Your task to perform on an android device: turn off translation in the chrome app Image 0: 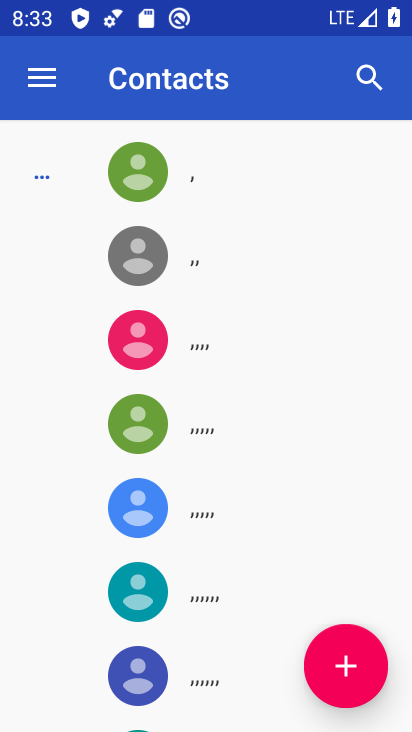
Step 0: press home button
Your task to perform on an android device: turn off translation in the chrome app Image 1: 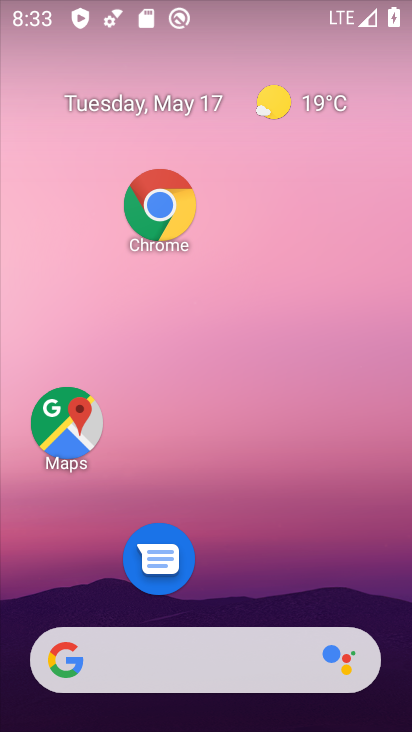
Step 1: drag from (207, 559) to (218, 212)
Your task to perform on an android device: turn off translation in the chrome app Image 2: 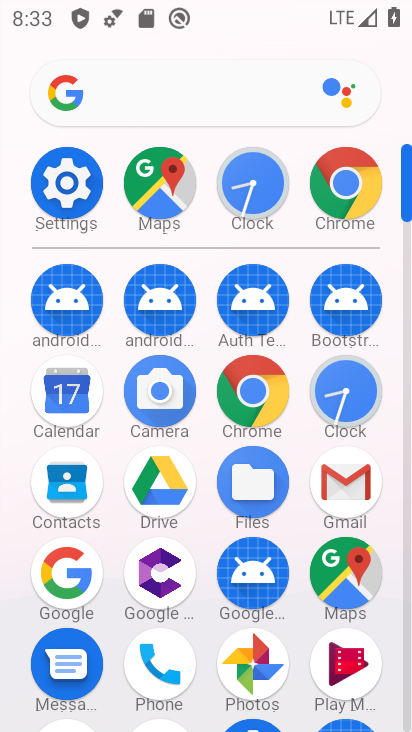
Step 2: click (331, 181)
Your task to perform on an android device: turn off translation in the chrome app Image 3: 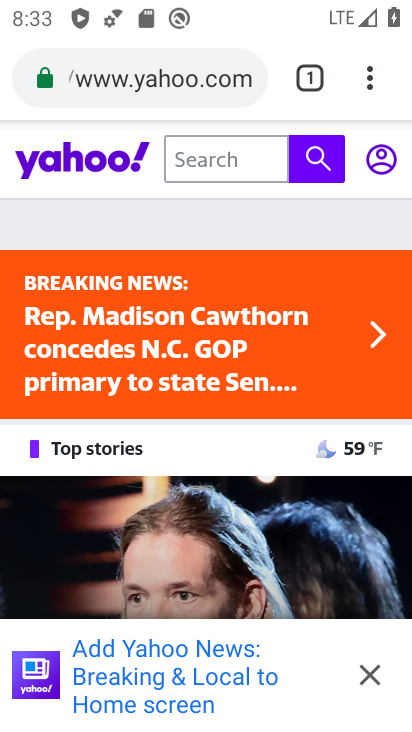
Step 3: click (372, 86)
Your task to perform on an android device: turn off translation in the chrome app Image 4: 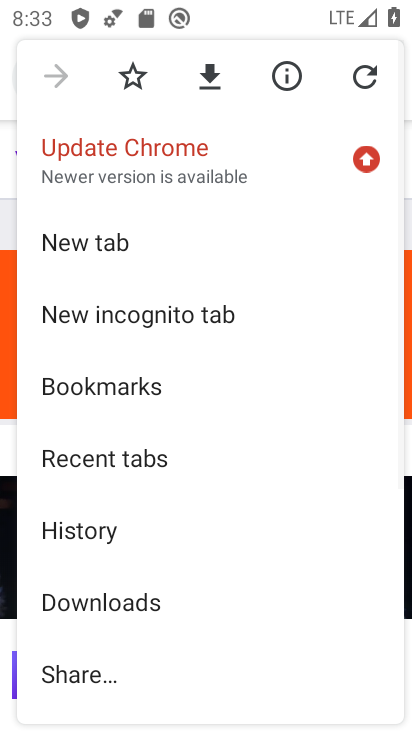
Step 4: drag from (158, 614) to (207, 156)
Your task to perform on an android device: turn off translation in the chrome app Image 5: 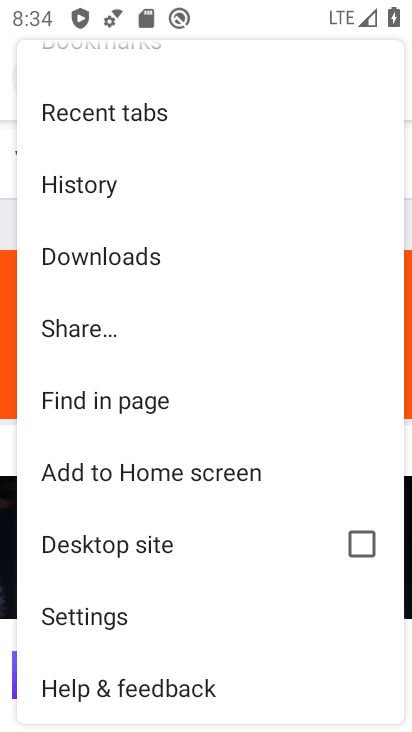
Step 5: click (115, 608)
Your task to perform on an android device: turn off translation in the chrome app Image 6: 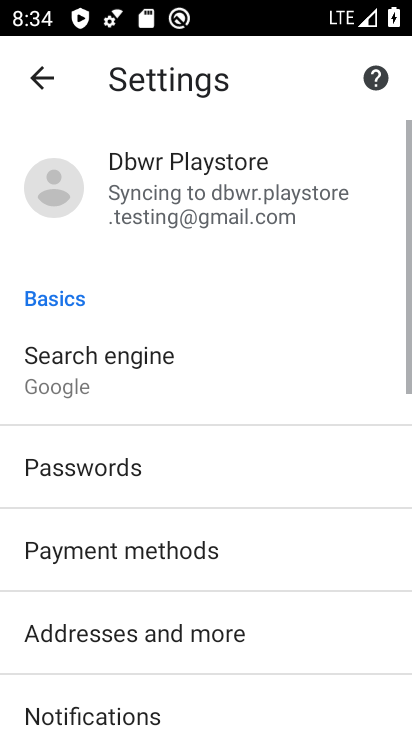
Step 6: drag from (166, 650) to (245, 133)
Your task to perform on an android device: turn off translation in the chrome app Image 7: 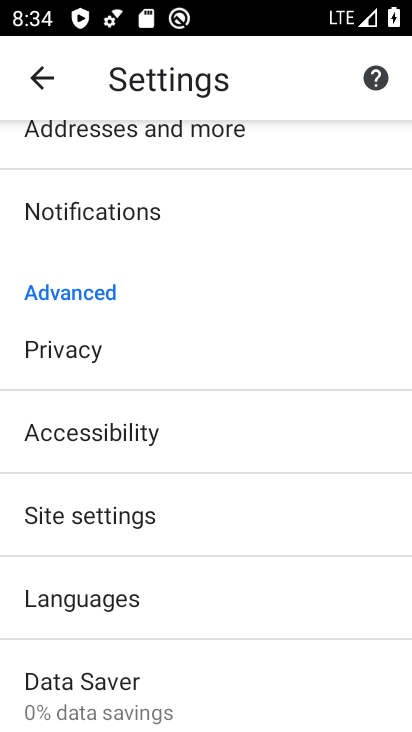
Step 7: drag from (180, 625) to (216, 301)
Your task to perform on an android device: turn off translation in the chrome app Image 8: 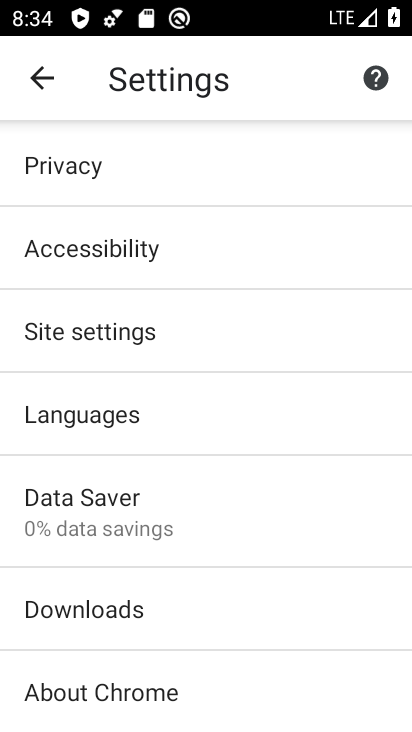
Step 8: drag from (180, 639) to (235, 270)
Your task to perform on an android device: turn off translation in the chrome app Image 9: 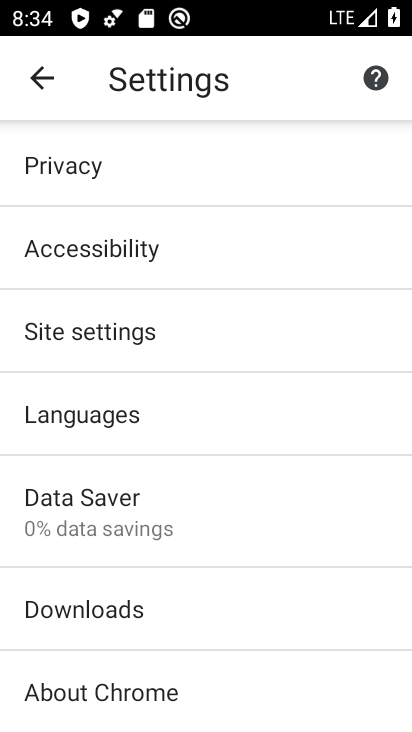
Step 9: drag from (160, 606) to (194, 299)
Your task to perform on an android device: turn off translation in the chrome app Image 10: 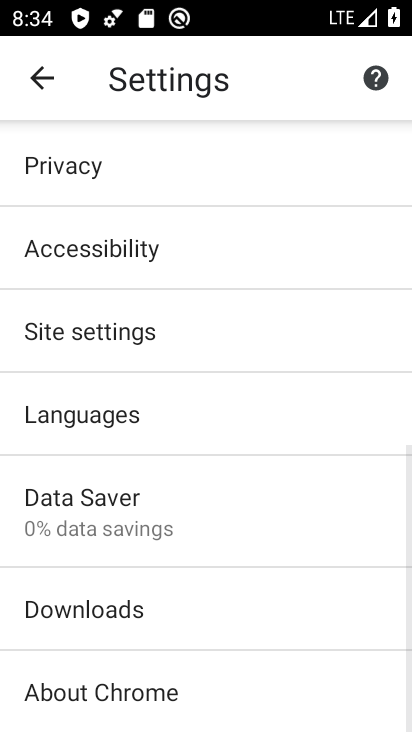
Step 10: drag from (253, 644) to (272, 299)
Your task to perform on an android device: turn off translation in the chrome app Image 11: 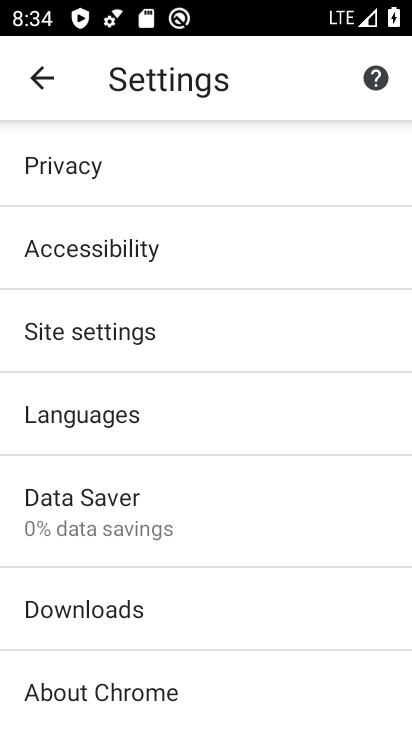
Step 11: click (114, 439)
Your task to perform on an android device: turn off translation in the chrome app Image 12: 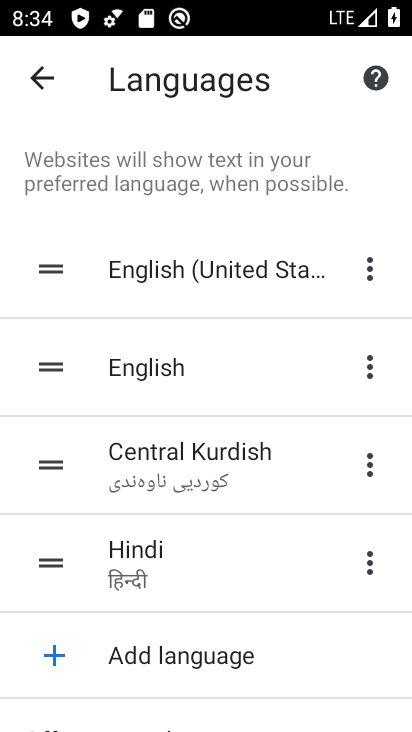
Step 12: task complete